Your task to perform on an android device: Go to calendar. Show me events next week Image 0: 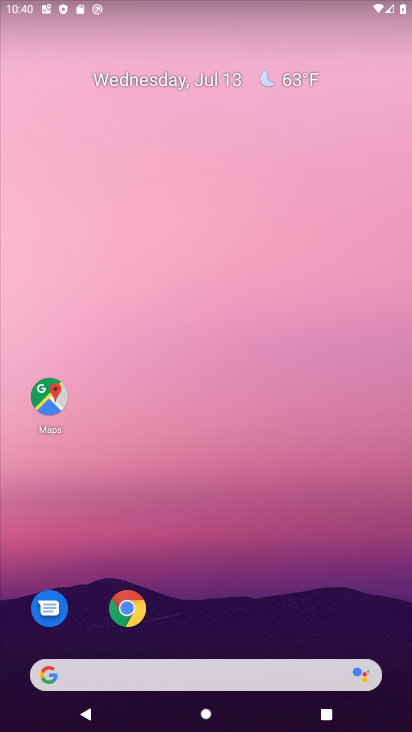
Step 0: drag from (328, 572) to (410, 190)
Your task to perform on an android device: Go to calendar. Show me events next week Image 1: 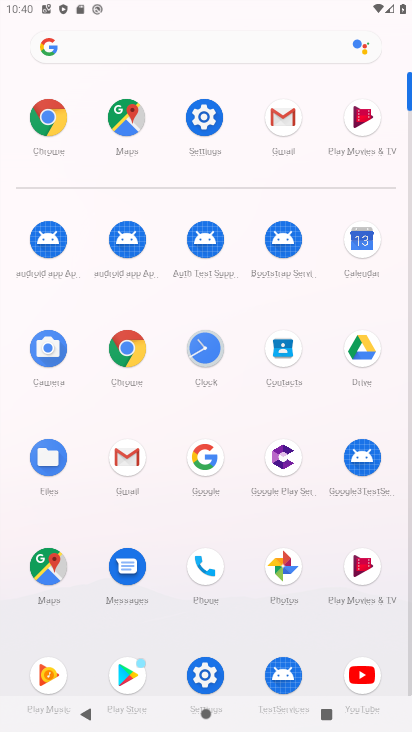
Step 1: click (363, 235)
Your task to perform on an android device: Go to calendar. Show me events next week Image 2: 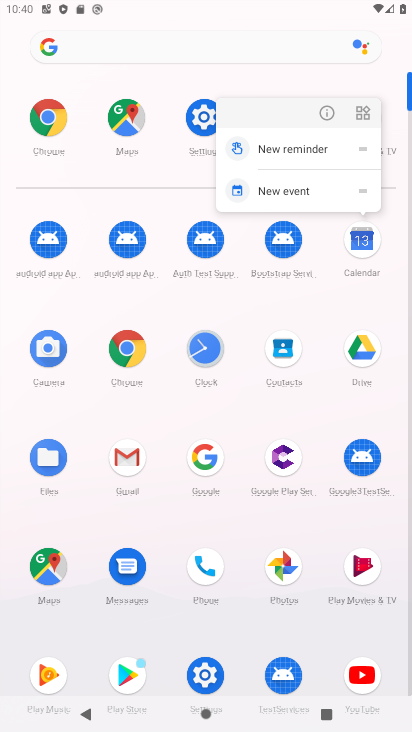
Step 2: click (368, 245)
Your task to perform on an android device: Go to calendar. Show me events next week Image 3: 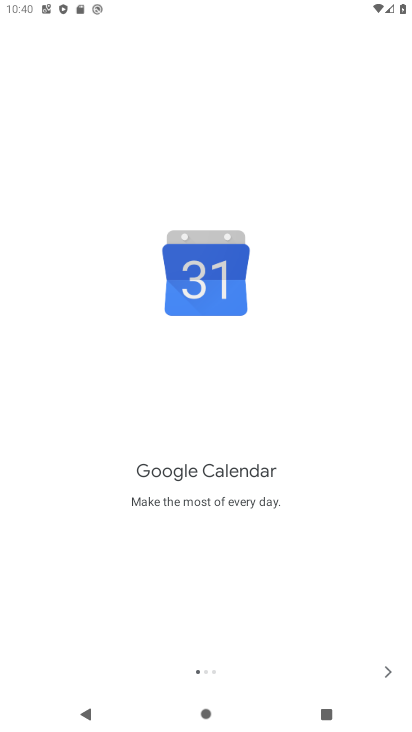
Step 3: click (386, 671)
Your task to perform on an android device: Go to calendar. Show me events next week Image 4: 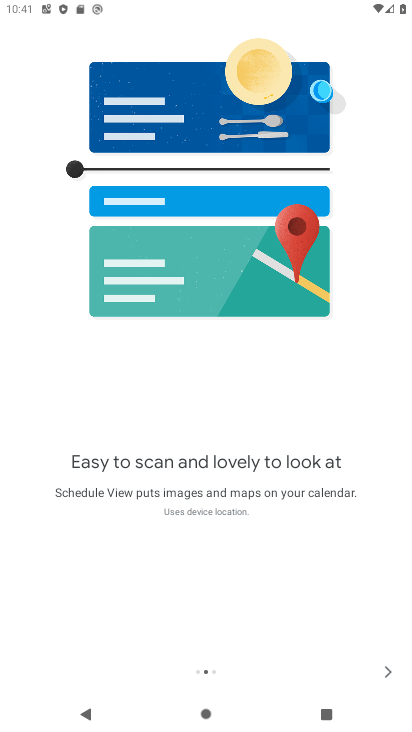
Step 4: click (386, 671)
Your task to perform on an android device: Go to calendar. Show me events next week Image 5: 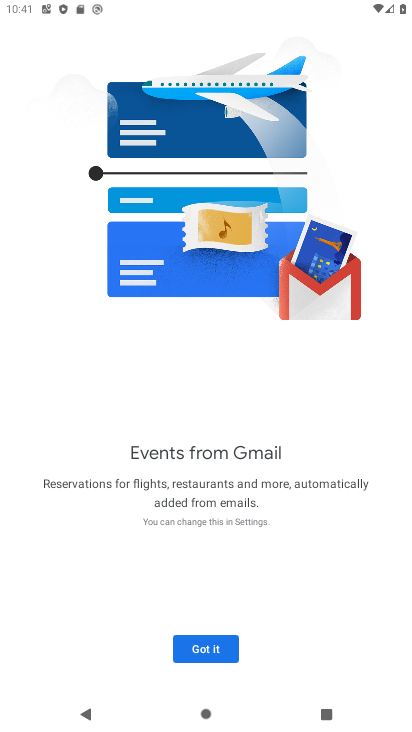
Step 5: click (207, 635)
Your task to perform on an android device: Go to calendar. Show me events next week Image 6: 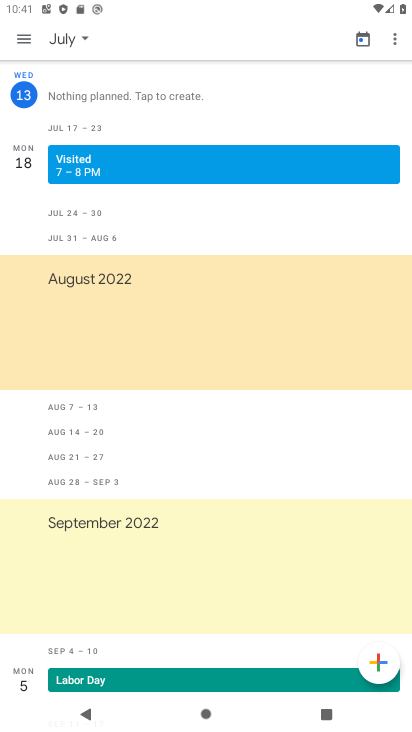
Step 6: click (69, 29)
Your task to perform on an android device: Go to calendar. Show me events next week Image 7: 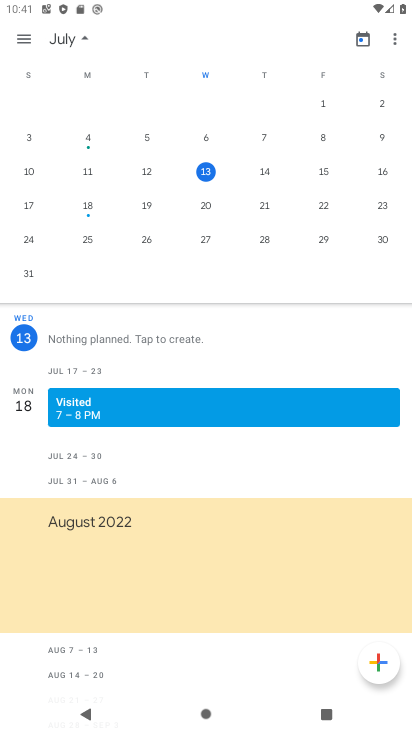
Step 7: click (200, 206)
Your task to perform on an android device: Go to calendar. Show me events next week Image 8: 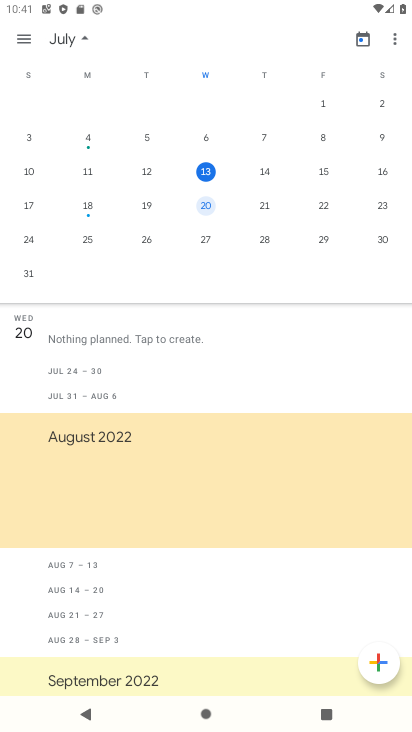
Step 8: task complete